Your task to perform on an android device: find which apps use the phone's location Image 0: 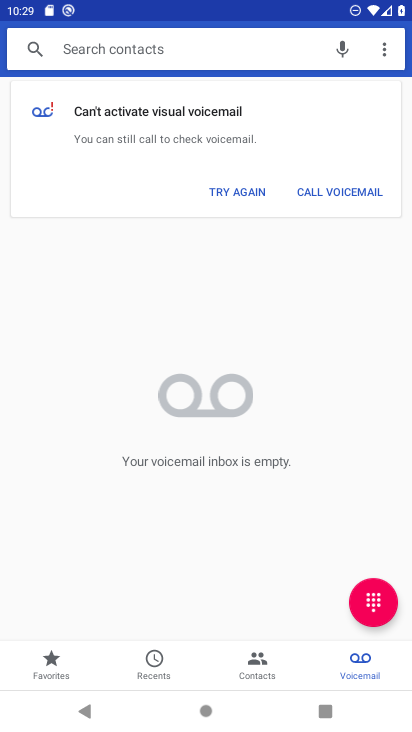
Step 0: press home button
Your task to perform on an android device: find which apps use the phone's location Image 1: 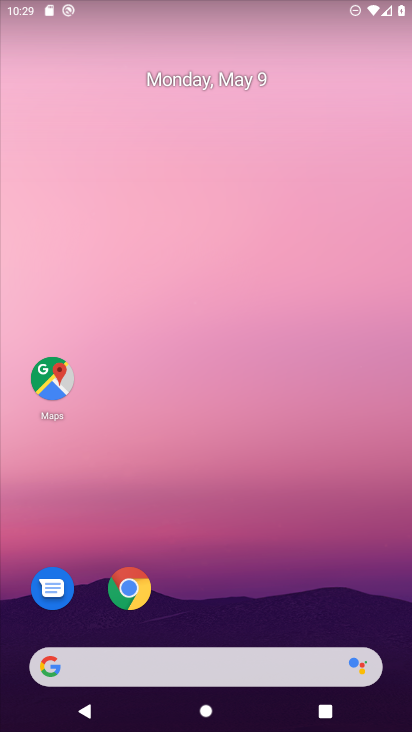
Step 1: drag from (288, 620) to (265, 30)
Your task to perform on an android device: find which apps use the phone's location Image 2: 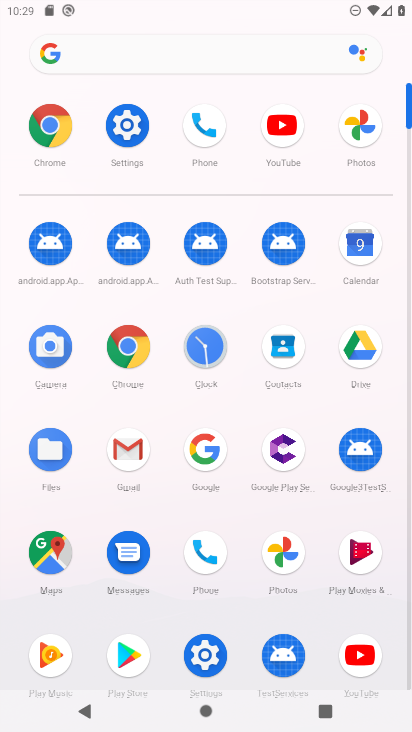
Step 2: click (213, 662)
Your task to perform on an android device: find which apps use the phone's location Image 3: 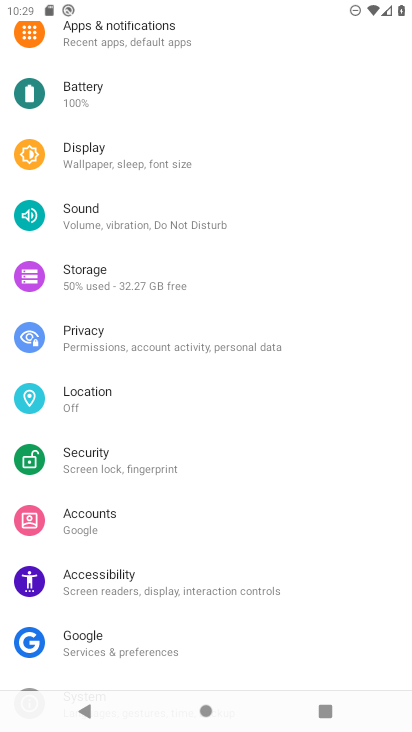
Step 3: click (154, 403)
Your task to perform on an android device: find which apps use the phone's location Image 4: 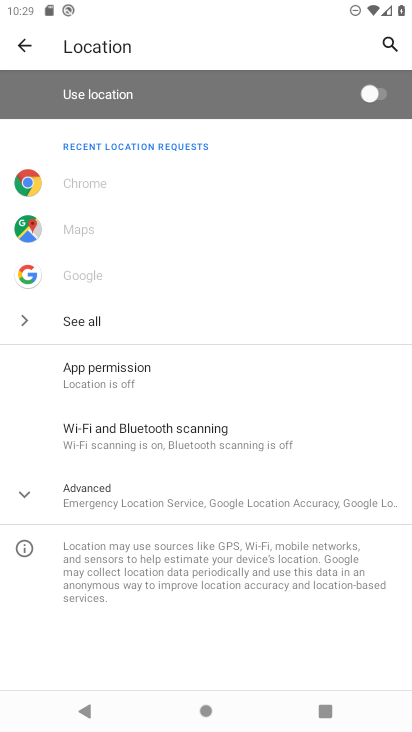
Step 4: click (96, 321)
Your task to perform on an android device: find which apps use the phone's location Image 5: 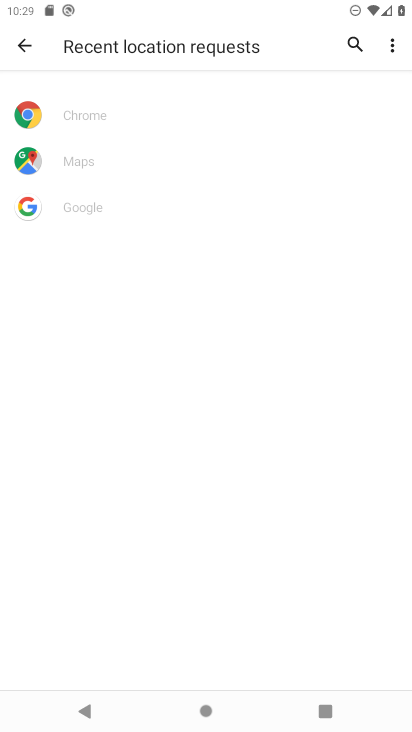
Step 5: task complete